Your task to perform on an android device: install app "Adobe Acrobat Reader: Edit PDF" Image 0: 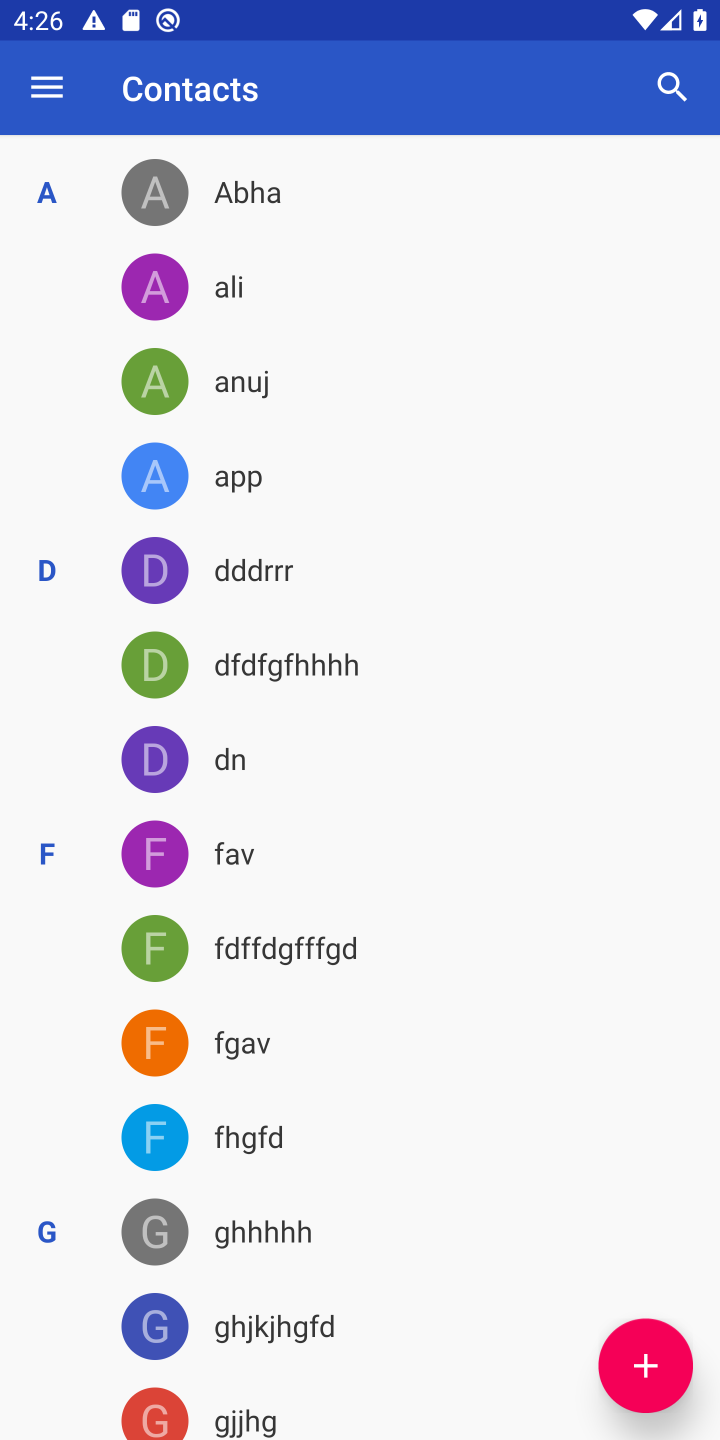
Step 0: press home button
Your task to perform on an android device: install app "Adobe Acrobat Reader: Edit PDF" Image 1: 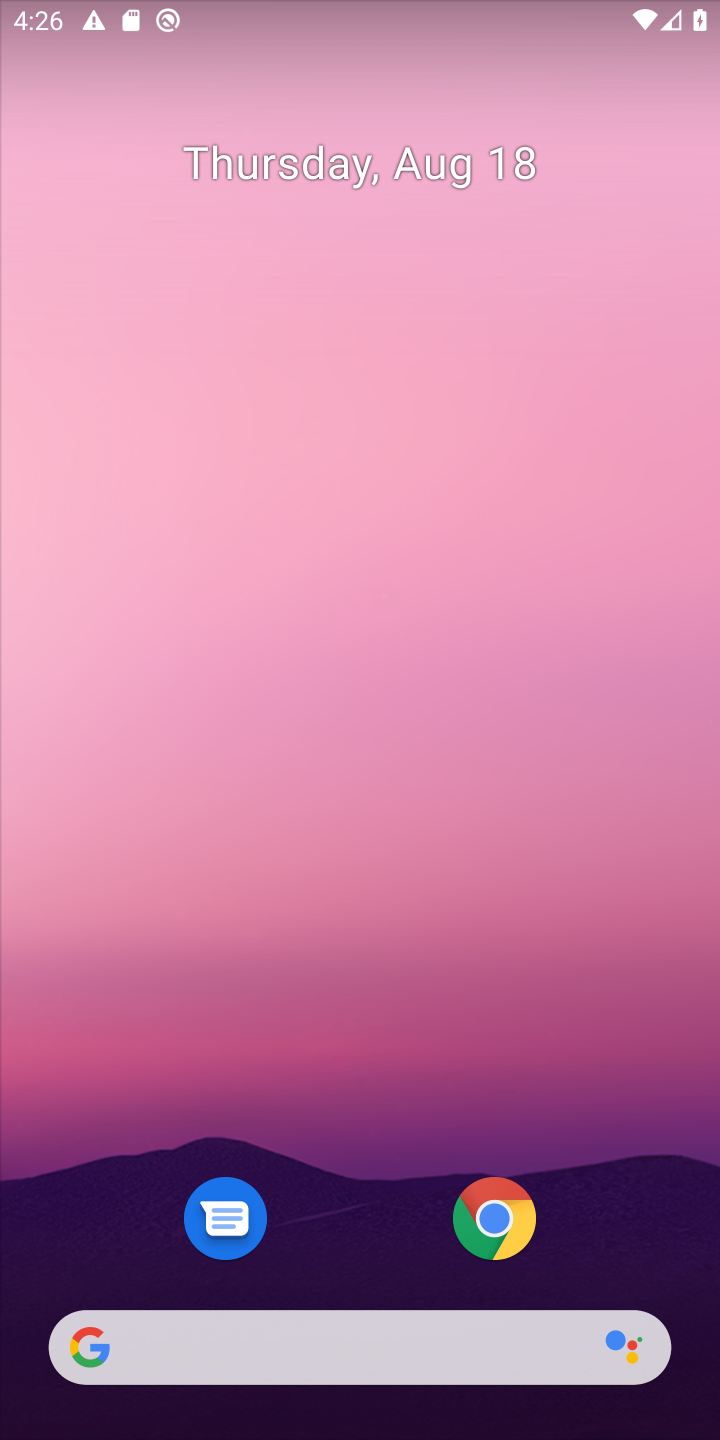
Step 1: drag from (354, 1095) to (354, 327)
Your task to perform on an android device: install app "Adobe Acrobat Reader: Edit PDF" Image 2: 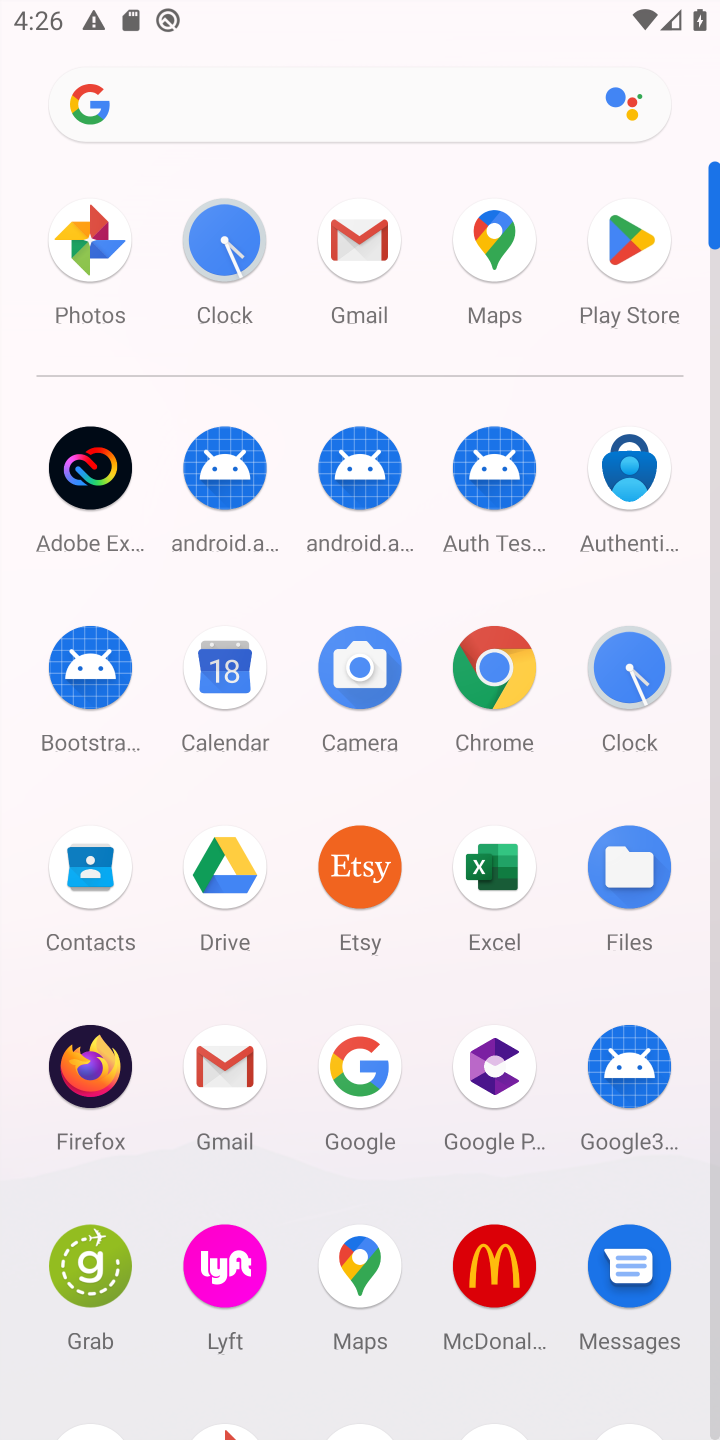
Step 2: click (614, 247)
Your task to perform on an android device: install app "Adobe Acrobat Reader: Edit PDF" Image 3: 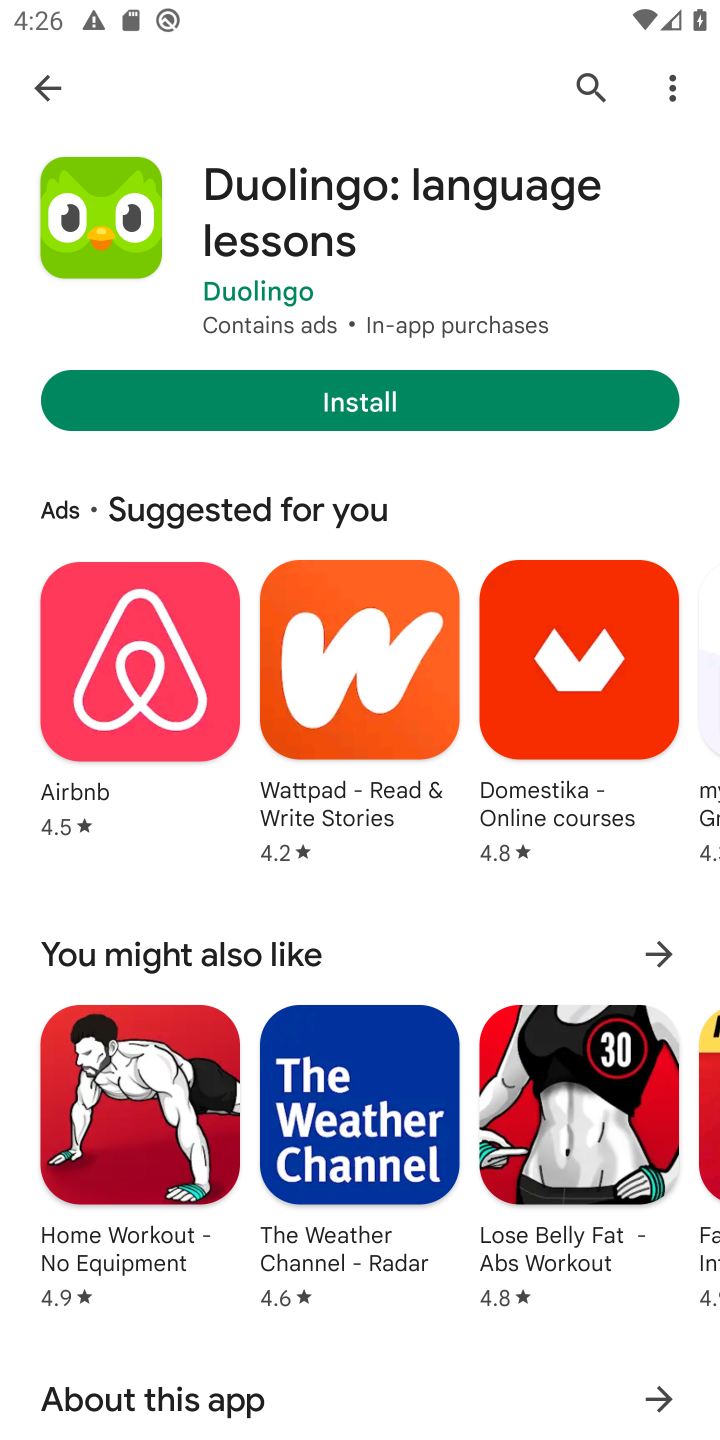
Step 3: click (575, 78)
Your task to perform on an android device: install app "Adobe Acrobat Reader: Edit PDF" Image 4: 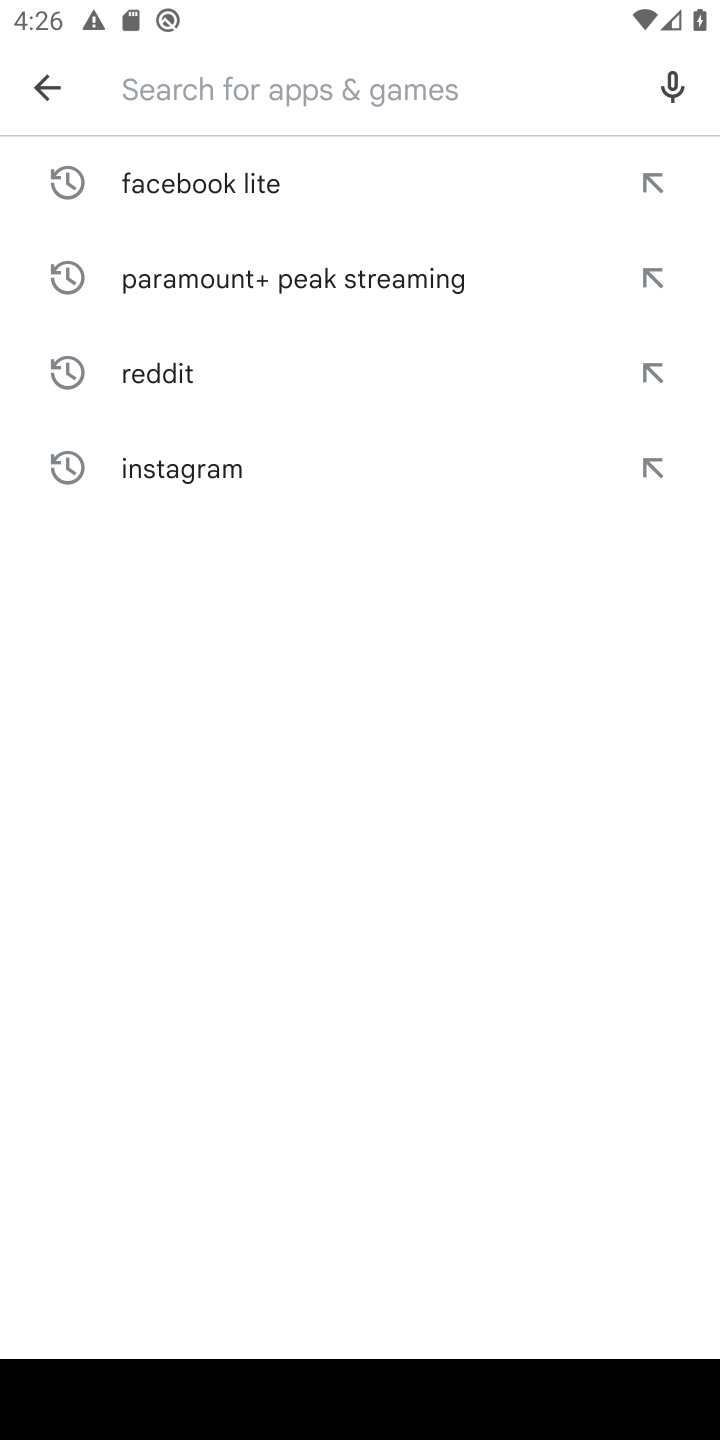
Step 4: type "Adobe Acrobat Reader: Edit PDF"
Your task to perform on an android device: install app "Adobe Acrobat Reader: Edit PDF" Image 5: 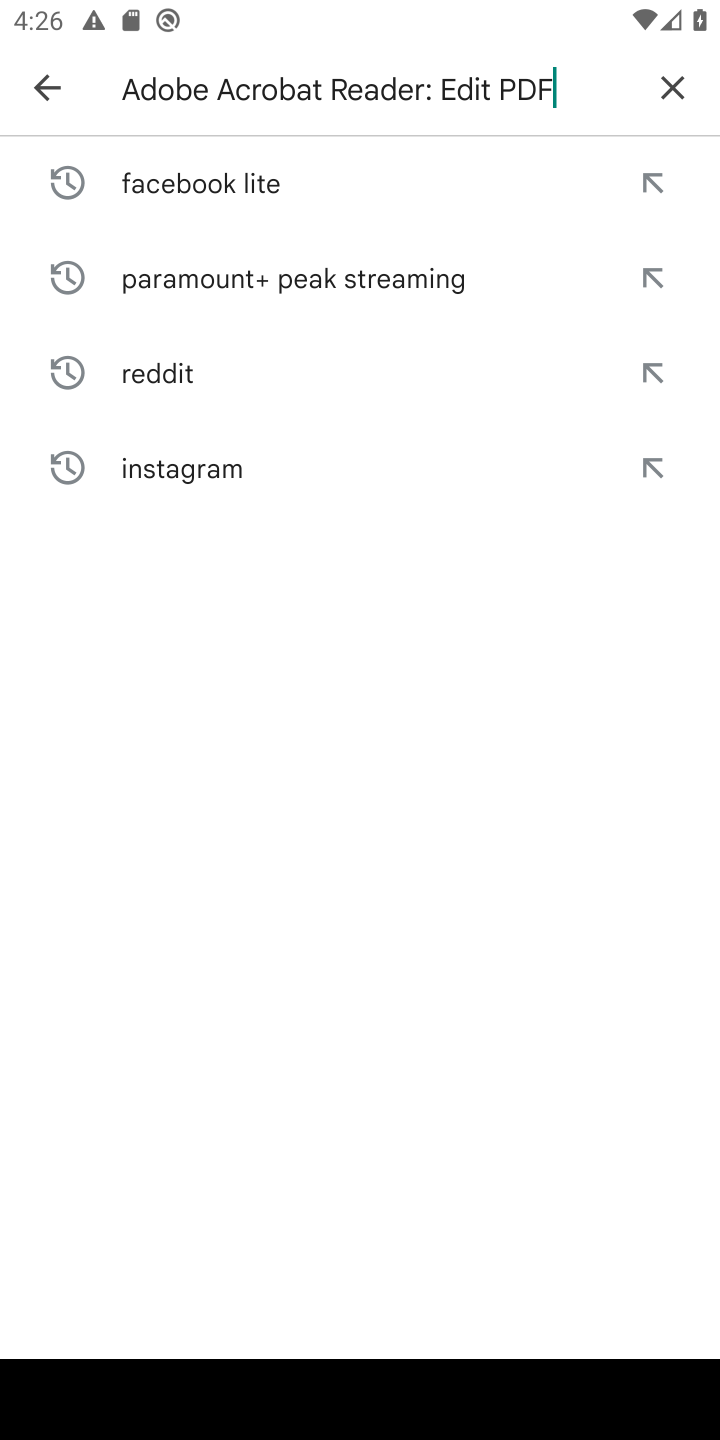
Step 5: type ""
Your task to perform on an android device: install app "Adobe Acrobat Reader: Edit PDF" Image 6: 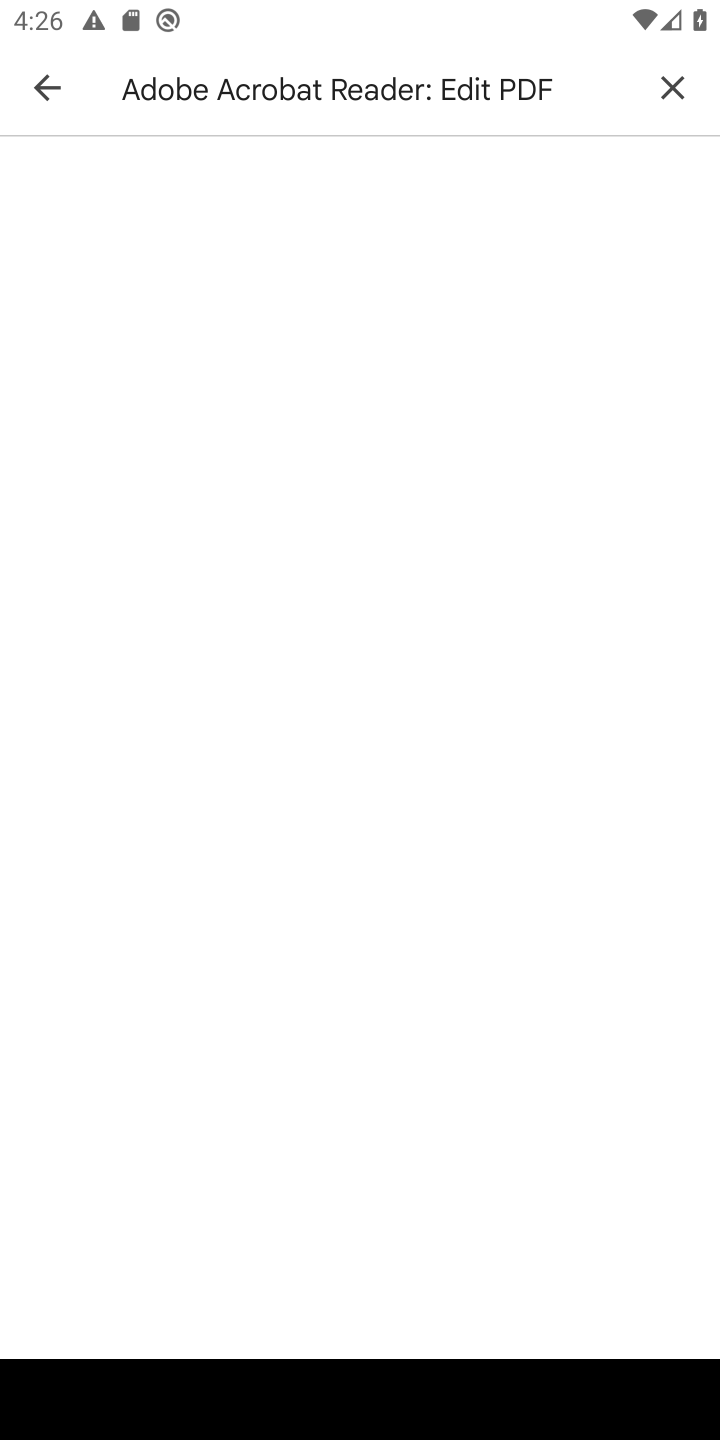
Step 6: task complete